Your task to perform on an android device: toggle data saver in the chrome app Image 0: 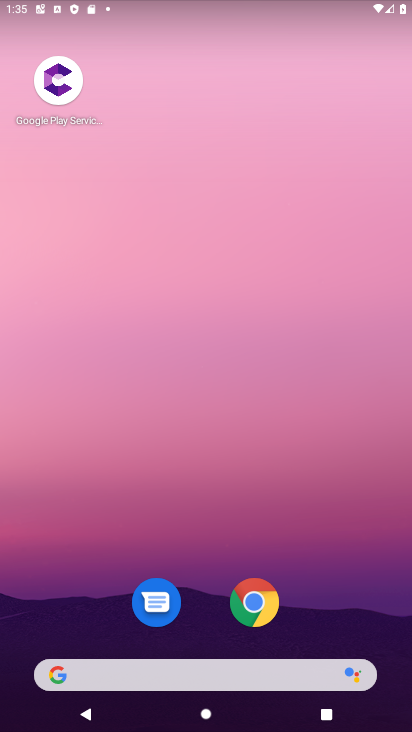
Step 0: drag from (388, 649) to (308, 22)
Your task to perform on an android device: toggle data saver in the chrome app Image 1: 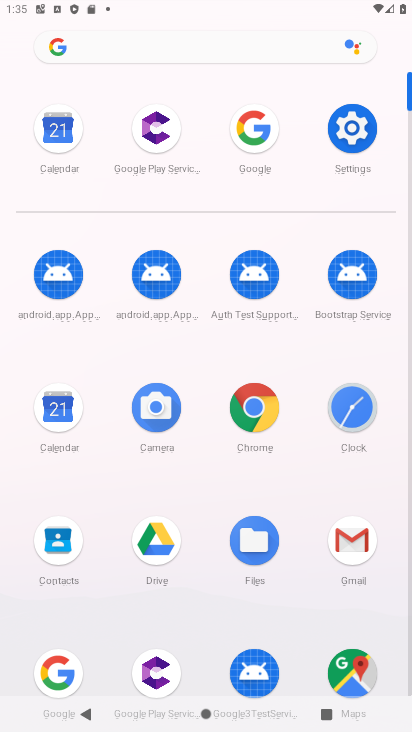
Step 1: click (250, 411)
Your task to perform on an android device: toggle data saver in the chrome app Image 2: 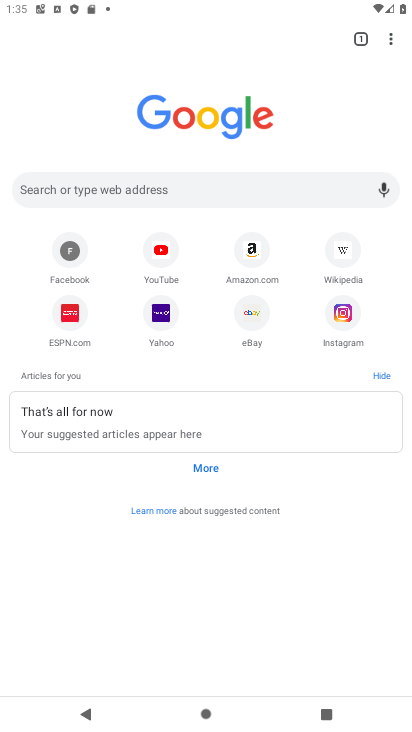
Step 2: click (391, 30)
Your task to perform on an android device: toggle data saver in the chrome app Image 3: 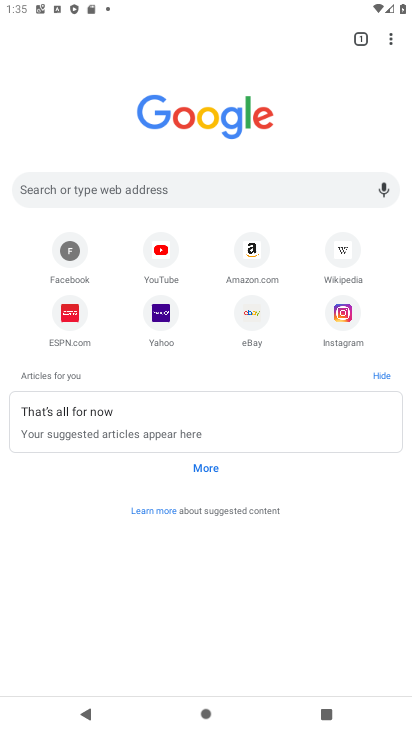
Step 3: click (391, 35)
Your task to perform on an android device: toggle data saver in the chrome app Image 4: 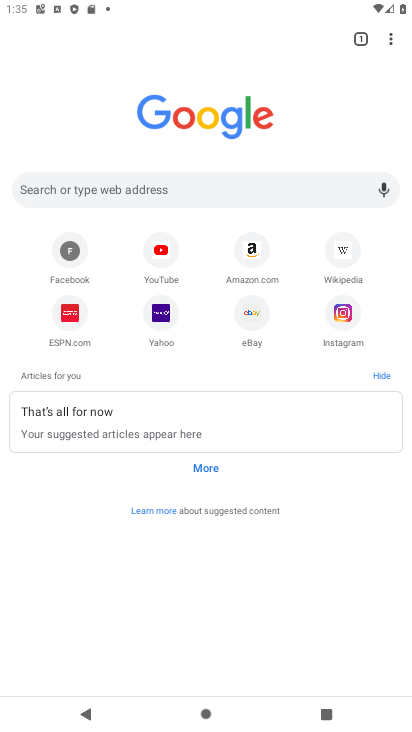
Step 4: click (387, 33)
Your task to perform on an android device: toggle data saver in the chrome app Image 5: 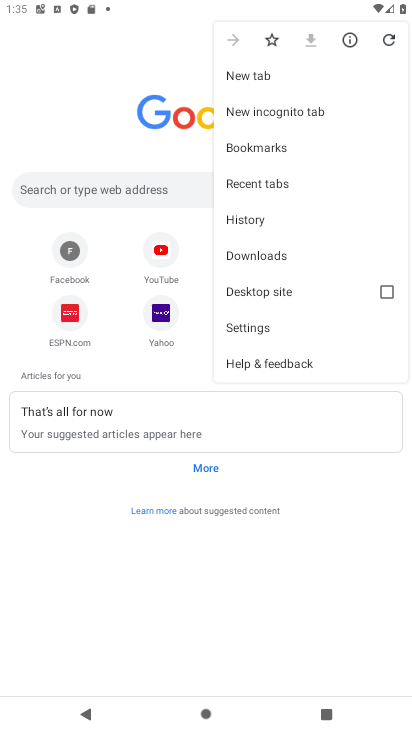
Step 5: click (257, 335)
Your task to perform on an android device: toggle data saver in the chrome app Image 6: 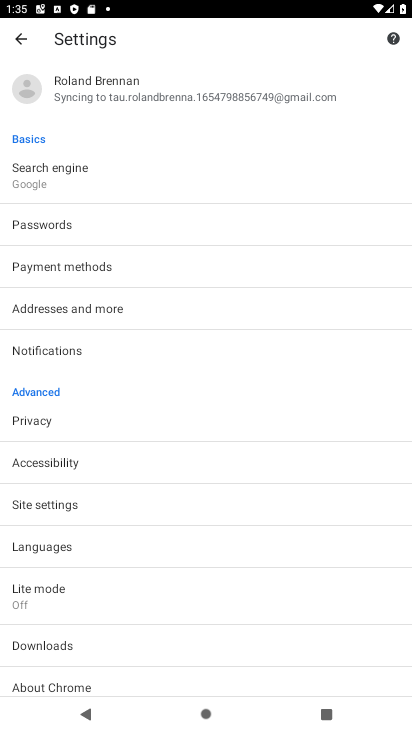
Step 6: click (62, 598)
Your task to perform on an android device: toggle data saver in the chrome app Image 7: 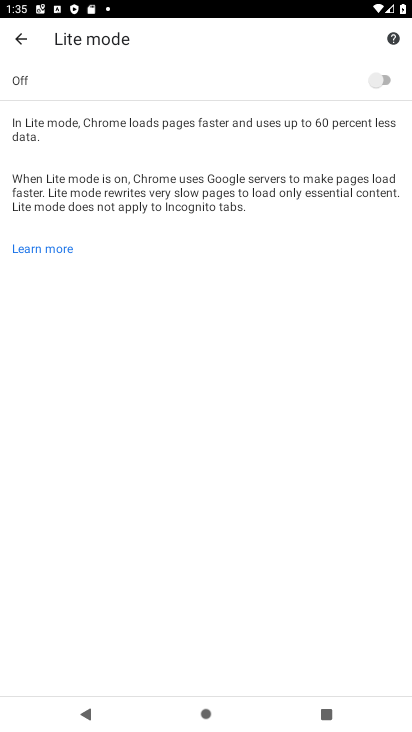
Step 7: click (379, 75)
Your task to perform on an android device: toggle data saver in the chrome app Image 8: 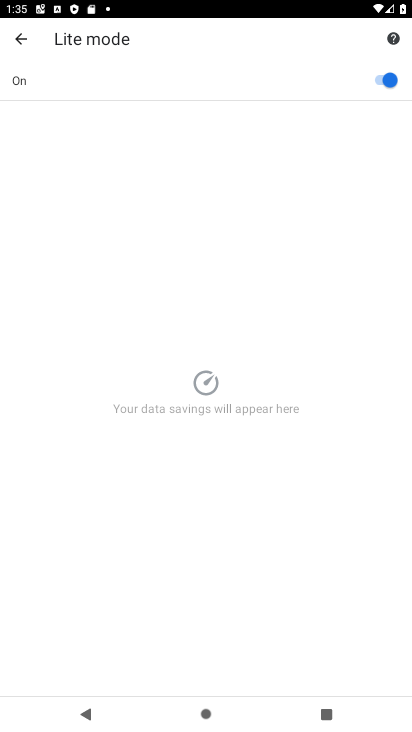
Step 8: task complete